Your task to perform on an android device: What's the news? Image 0: 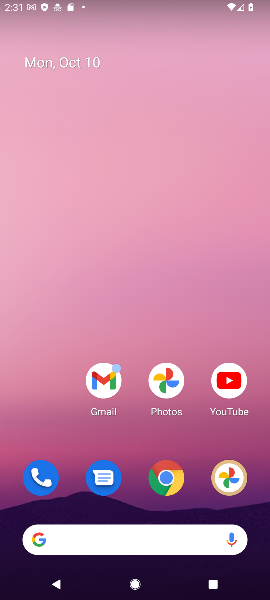
Step 0: drag from (40, 535) to (74, 532)
Your task to perform on an android device: What's the news? Image 1: 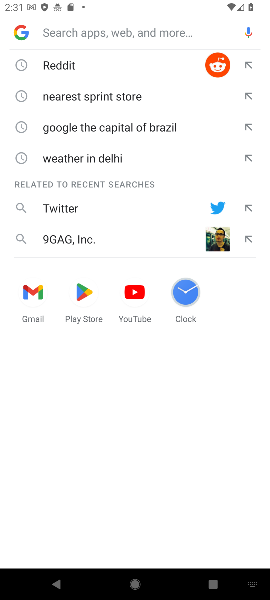
Step 1: click (19, 34)
Your task to perform on an android device: What's the news? Image 2: 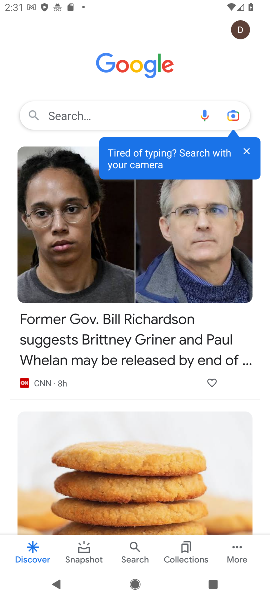
Step 2: task complete